Your task to perform on an android device: check android version Image 0: 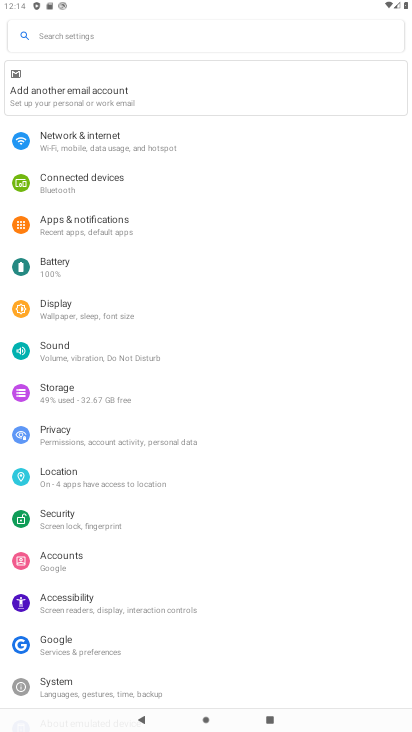
Step 0: drag from (58, 689) to (143, 92)
Your task to perform on an android device: check android version Image 1: 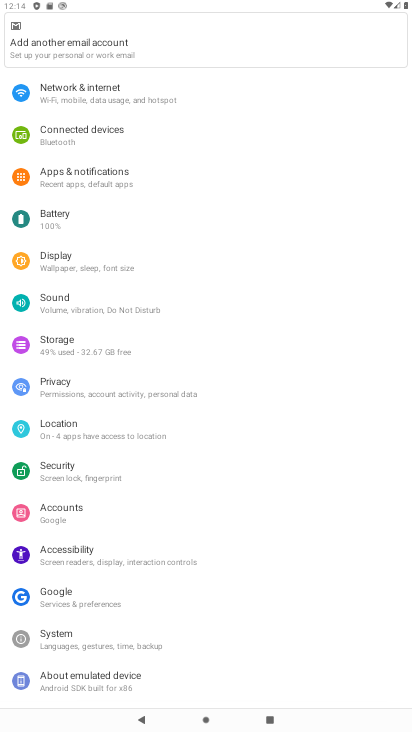
Step 1: click (83, 688)
Your task to perform on an android device: check android version Image 2: 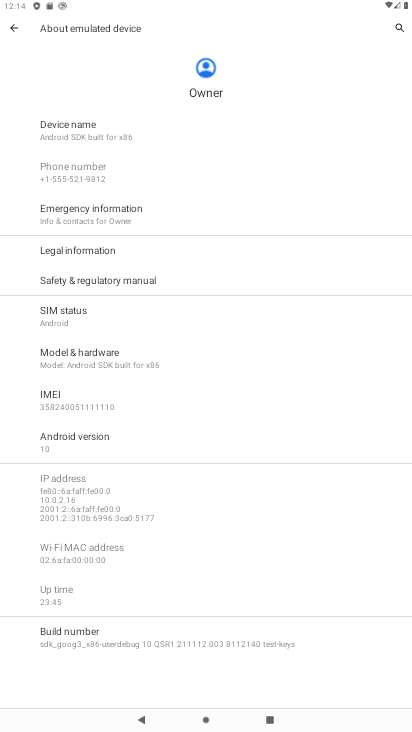
Step 2: click (76, 445)
Your task to perform on an android device: check android version Image 3: 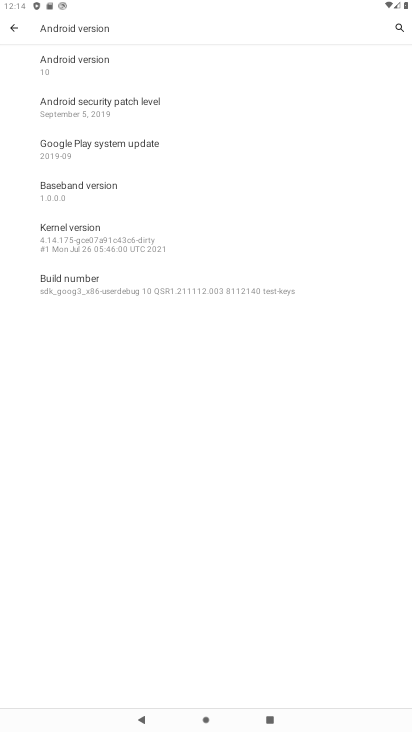
Step 3: task complete